Your task to perform on an android device: Open settings Image 0: 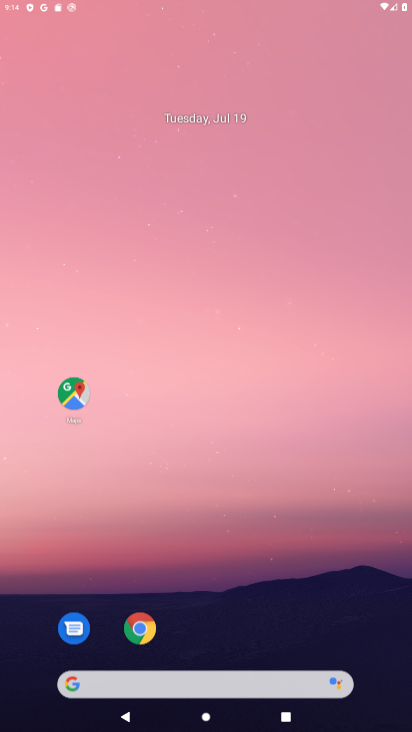
Step 0: click (232, 159)
Your task to perform on an android device: Open settings Image 1: 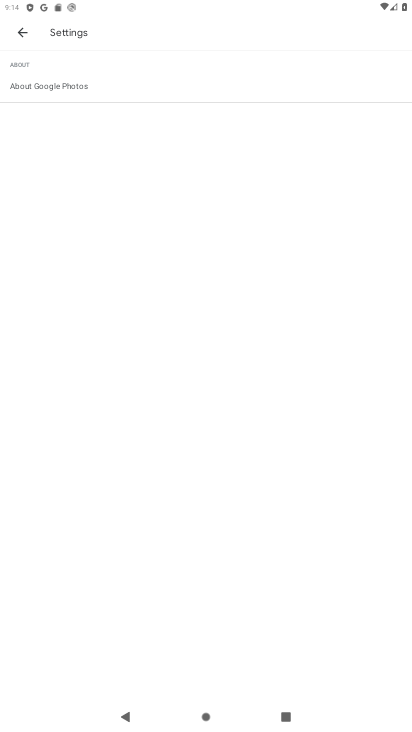
Step 1: press home button
Your task to perform on an android device: Open settings Image 2: 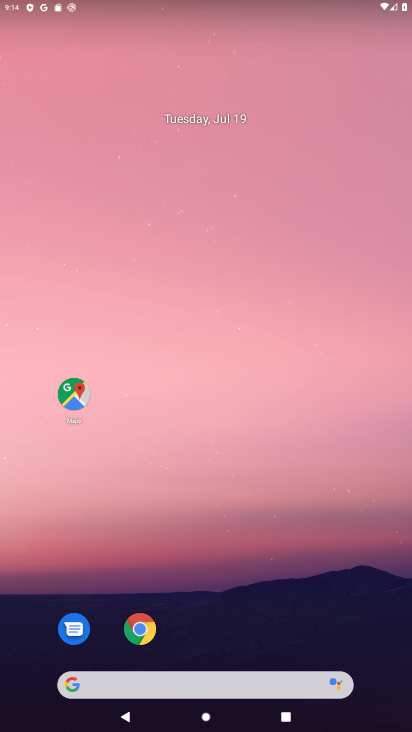
Step 2: drag from (256, 611) to (245, 246)
Your task to perform on an android device: Open settings Image 3: 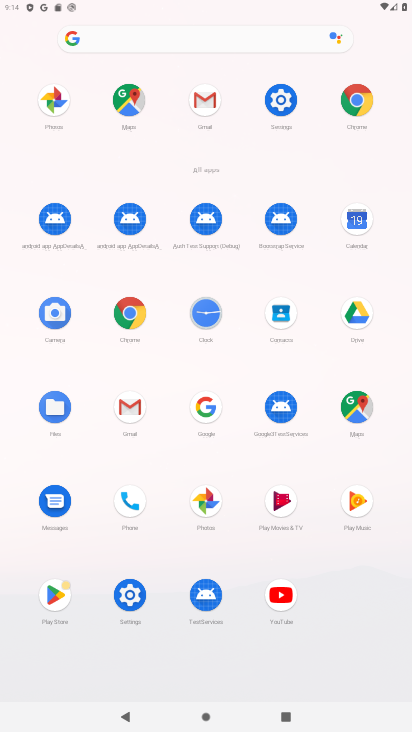
Step 3: click (295, 103)
Your task to perform on an android device: Open settings Image 4: 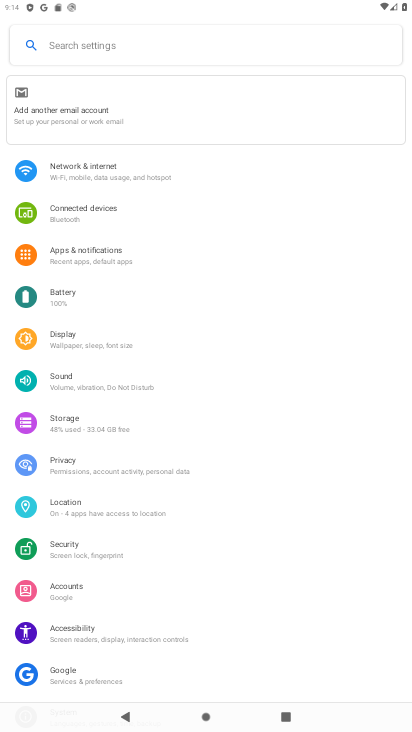
Step 4: task complete